Your task to perform on an android device: open the mobile data screen to see how much data has been used Image 0: 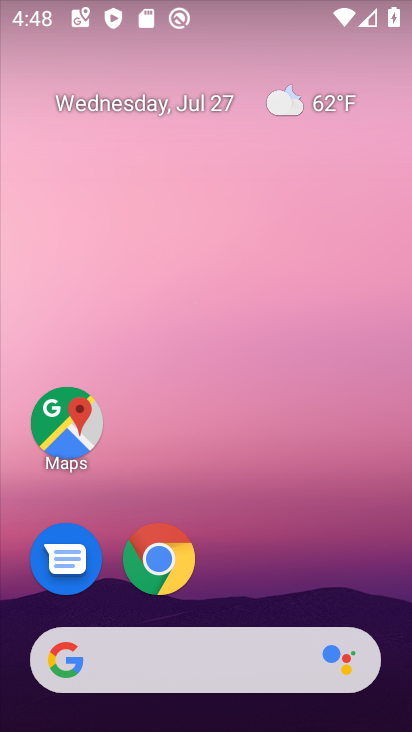
Step 0: drag from (238, 565) to (298, 68)
Your task to perform on an android device: open the mobile data screen to see how much data has been used Image 1: 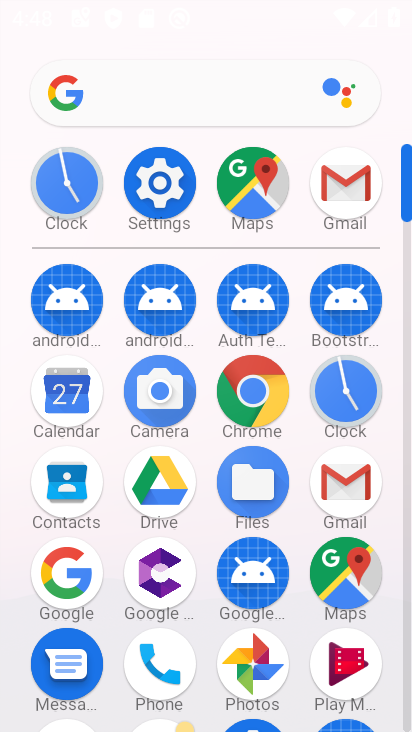
Step 1: click (151, 173)
Your task to perform on an android device: open the mobile data screen to see how much data has been used Image 2: 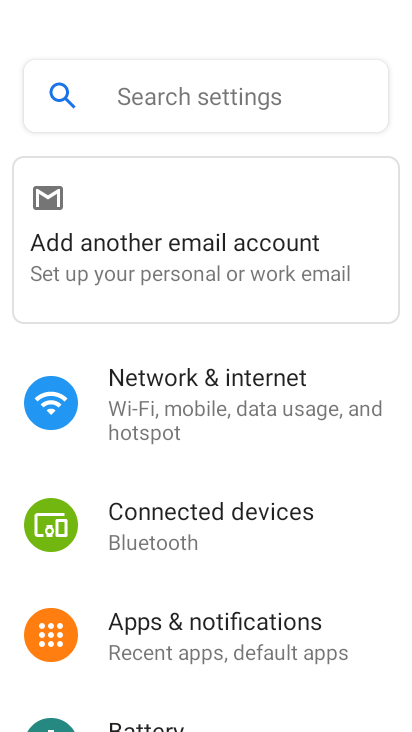
Step 2: click (280, 406)
Your task to perform on an android device: open the mobile data screen to see how much data has been used Image 3: 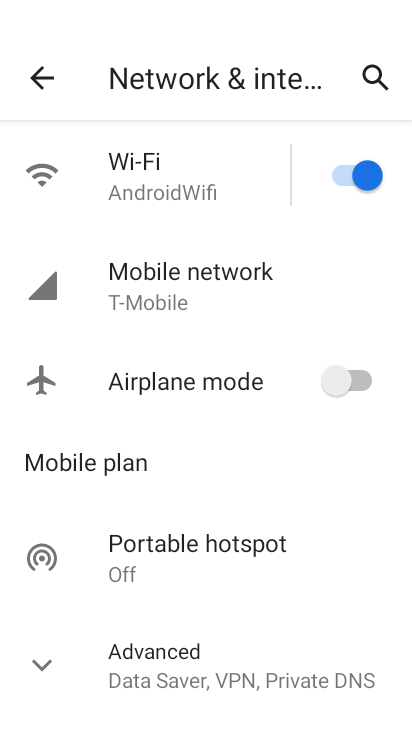
Step 3: click (199, 293)
Your task to perform on an android device: open the mobile data screen to see how much data has been used Image 4: 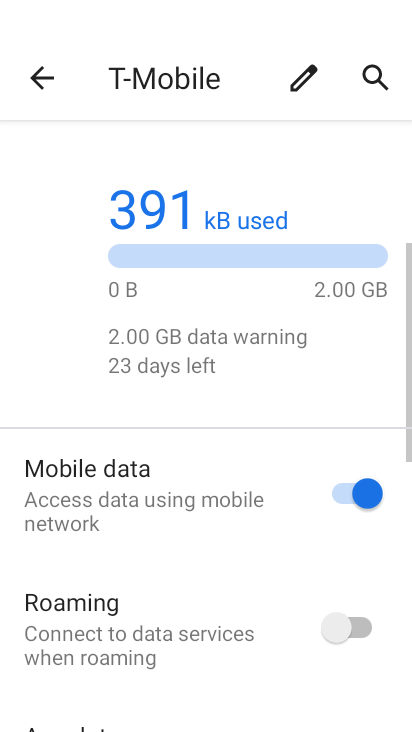
Step 4: drag from (202, 638) to (301, 84)
Your task to perform on an android device: open the mobile data screen to see how much data has been used Image 5: 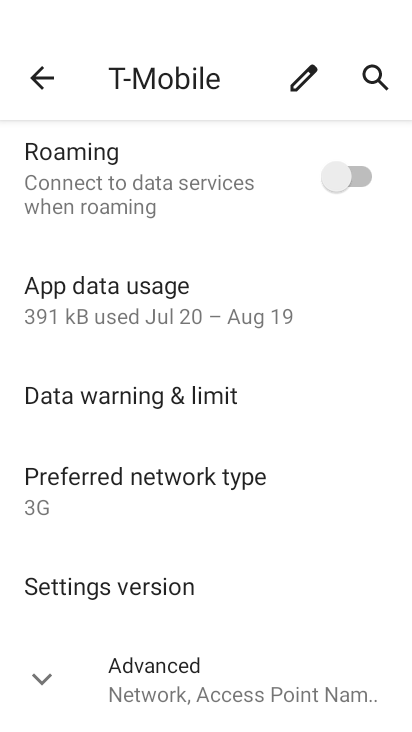
Step 5: click (141, 288)
Your task to perform on an android device: open the mobile data screen to see how much data has been used Image 6: 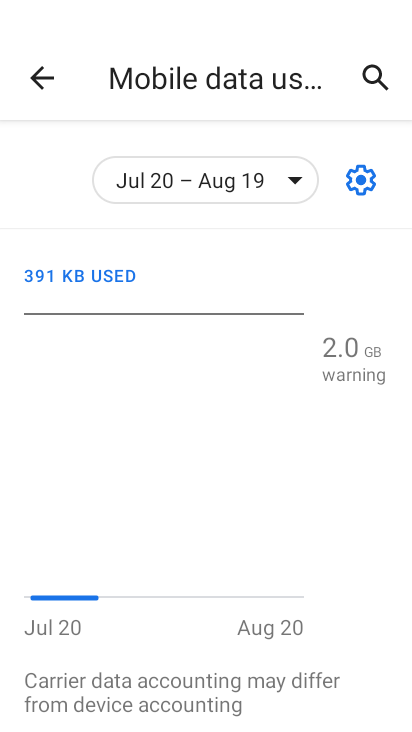
Step 6: task complete